Your task to perform on an android device: turn on airplane mode Image 0: 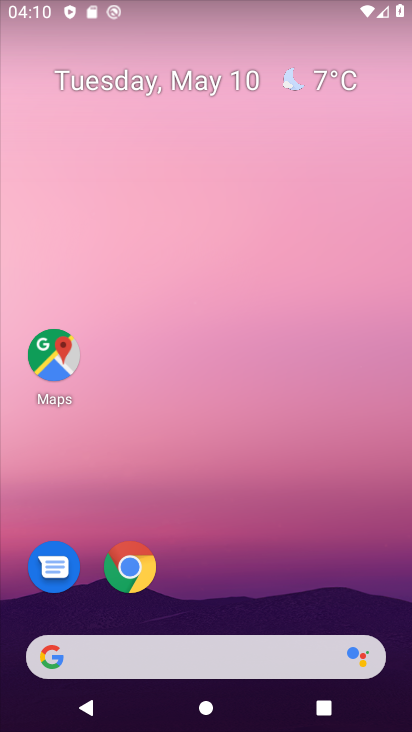
Step 0: drag from (271, 562) to (191, 151)
Your task to perform on an android device: turn on airplane mode Image 1: 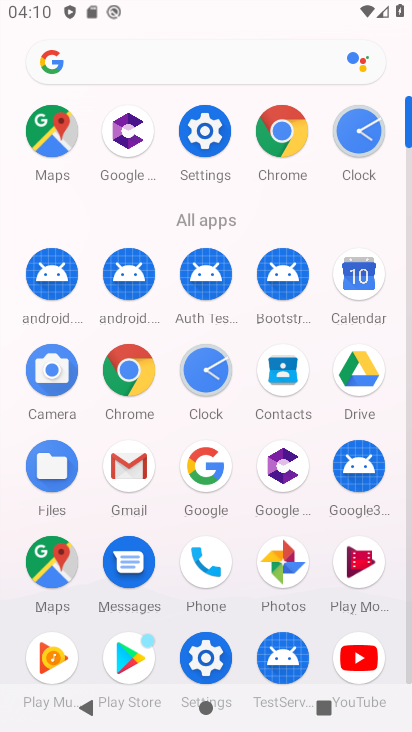
Step 1: click (202, 129)
Your task to perform on an android device: turn on airplane mode Image 2: 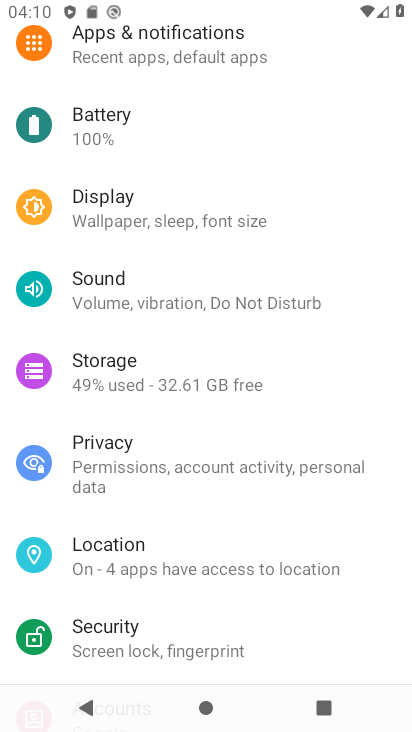
Step 2: drag from (142, 133) to (172, 269)
Your task to perform on an android device: turn on airplane mode Image 3: 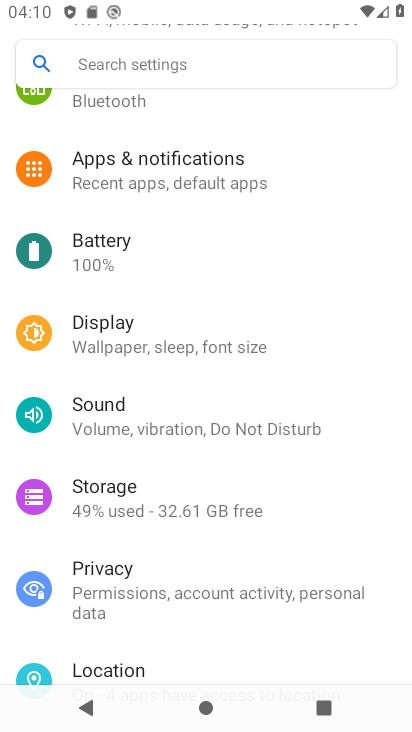
Step 3: drag from (193, 152) to (219, 288)
Your task to perform on an android device: turn on airplane mode Image 4: 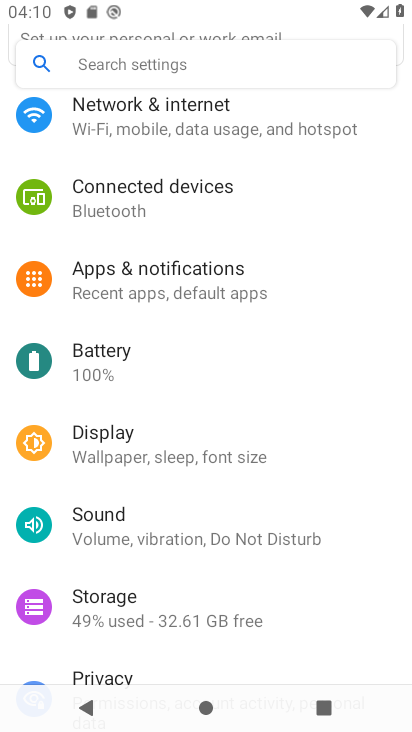
Step 4: click (203, 129)
Your task to perform on an android device: turn on airplane mode Image 5: 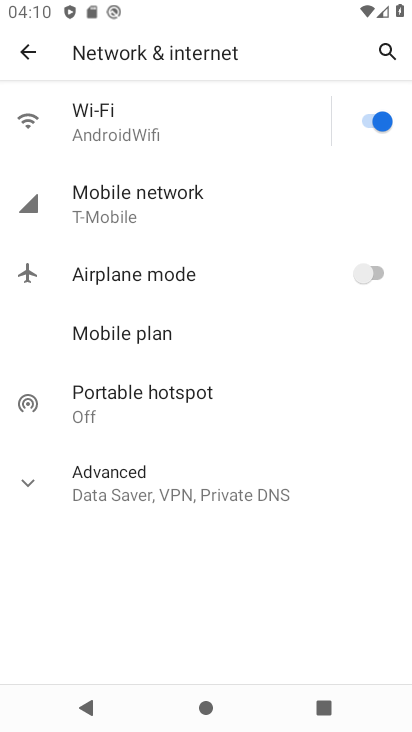
Step 5: click (366, 279)
Your task to perform on an android device: turn on airplane mode Image 6: 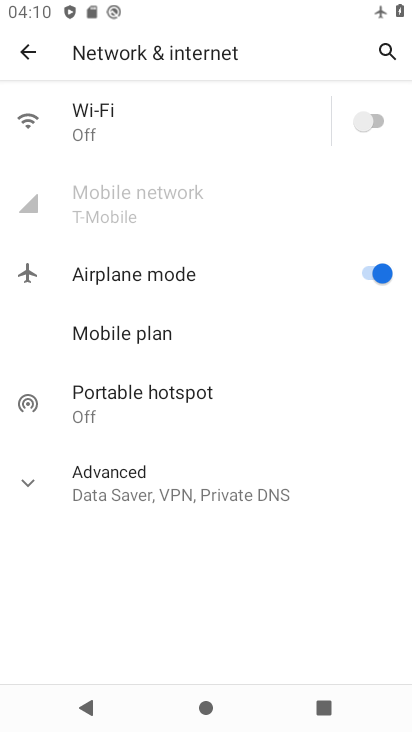
Step 6: task complete